Your task to perform on an android device: Open Android settings Image 0: 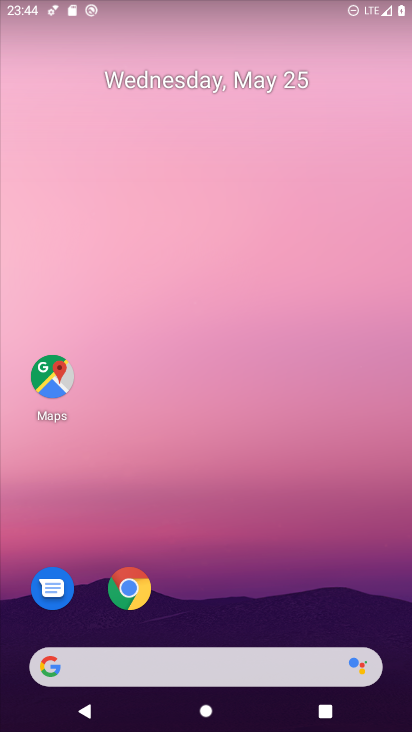
Step 0: drag from (200, 581) to (159, 90)
Your task to perform on an android device: Open Android settings Image 1: 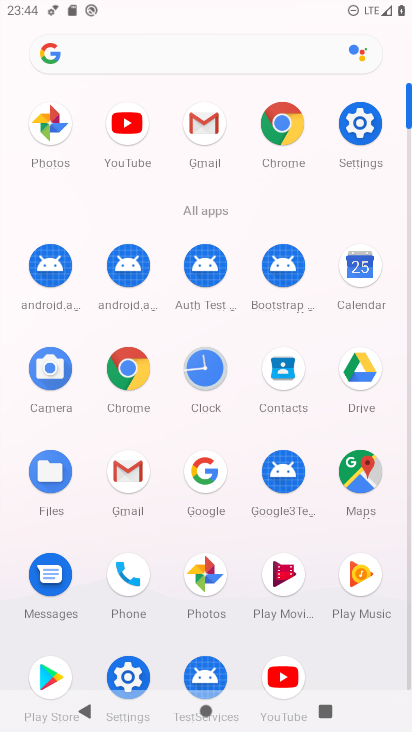
Step 1: click (355, 106)
Your task to perform on an android device: Open Android settings Image 2: 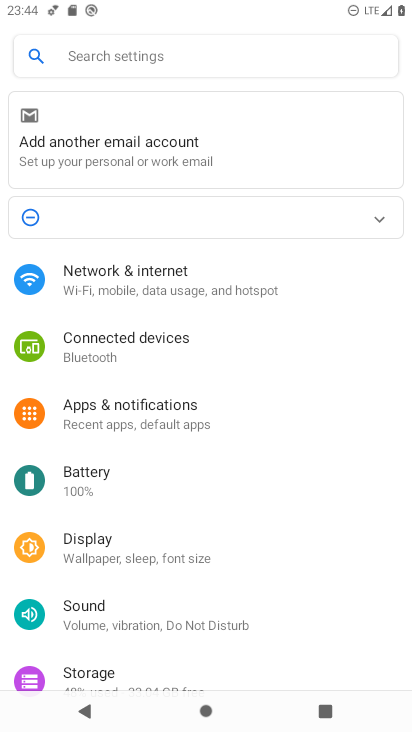
Step 2: task complete